Your task to perform on an android device: turn on javascript in the chrome app Image 0: 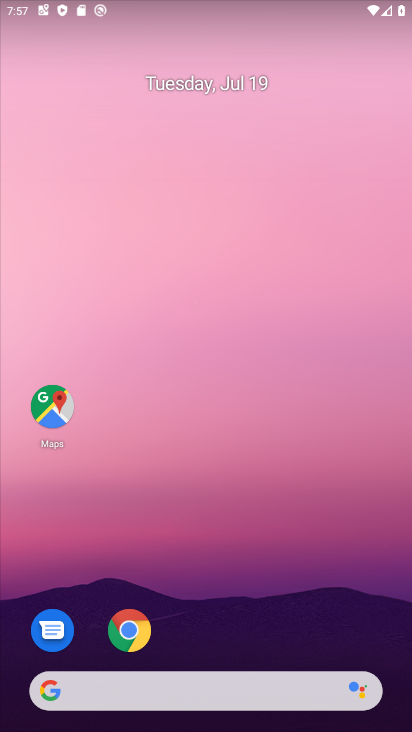
Step 0: drag from (295, 613) to (270, 122)
Your task to perform on an android device: turn on javascript in the chrome app Image 1: 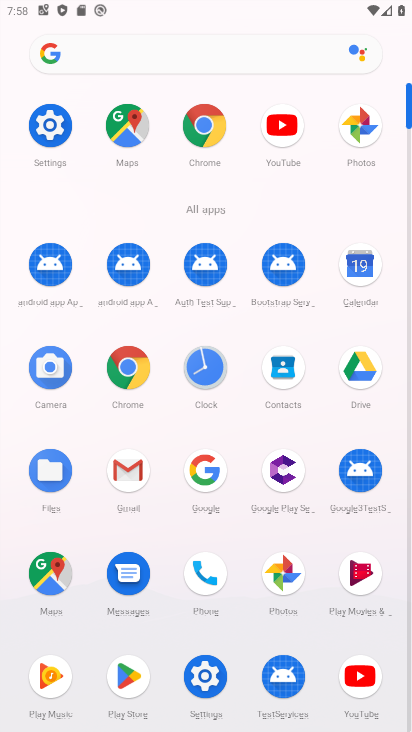
Step 1: click (206, 119)
Your task to perform on an android device: turn on javascript in the chrome app Image 2: 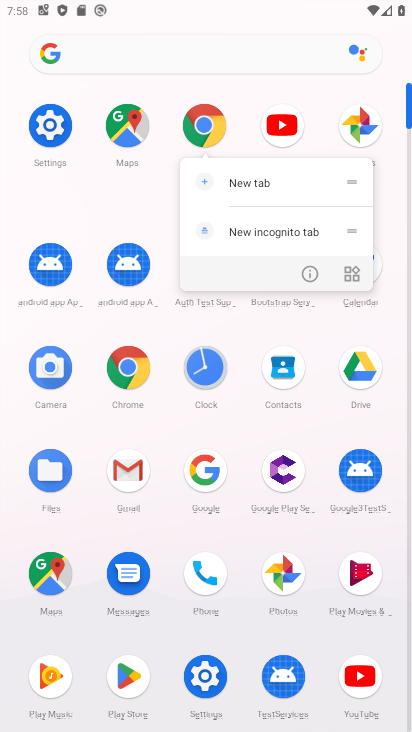
Step 2: click (203, 125)
Your task to perform on an android device: turn on javascript in the chrome app Image 3: 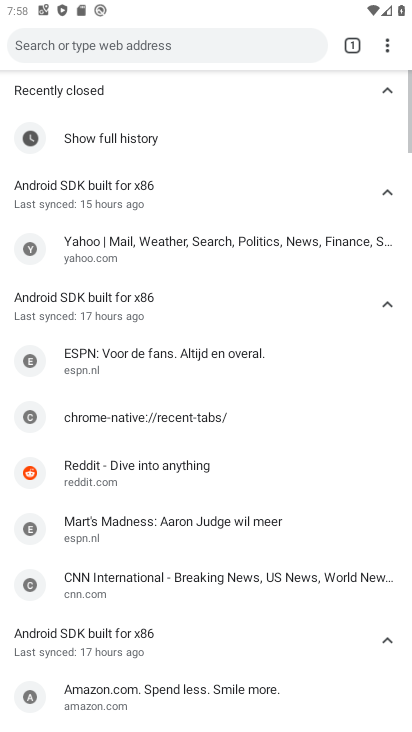
Step 3: click (389, 47)
Your task to perform on an android device: turn on javascript in the chrome app Image 4: 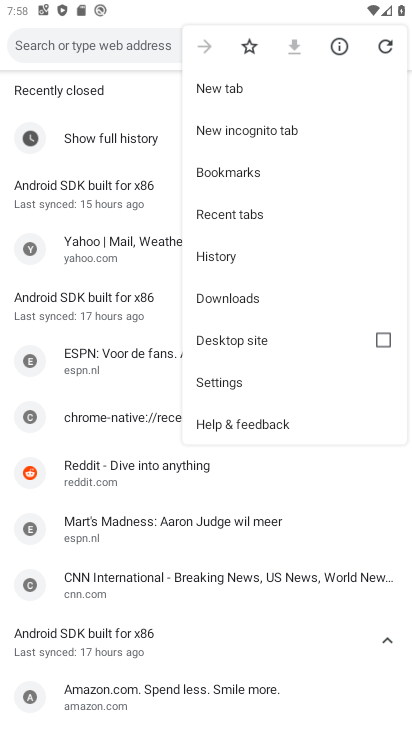
Step 4: click (257, 383)
Your task to perform on an android device: turn on javascript in the chrome app Image 5: 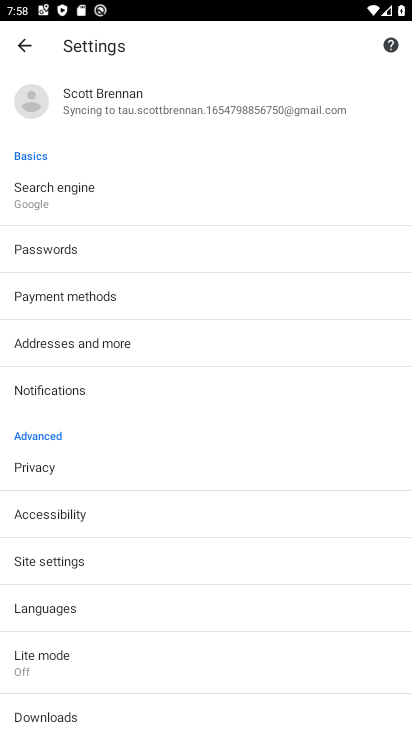
Step 5: click (81, 556)
Your task to perform on an android device: turn on javascript in the chrome app Image 6: 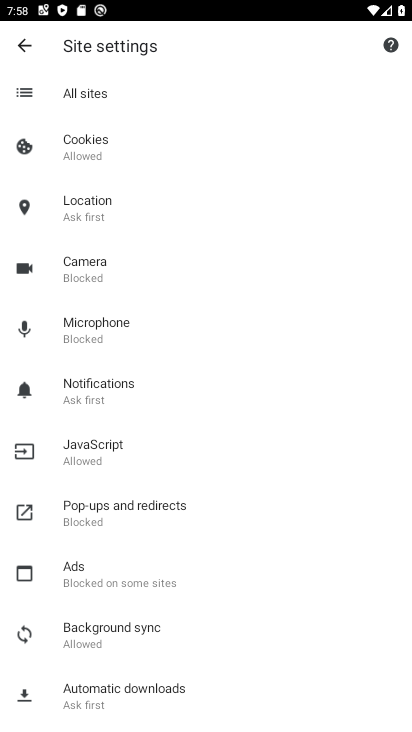
Step 6: click (108, 460)
Your task to perform on an android device: turn on javascript in the chrome app Image 7: 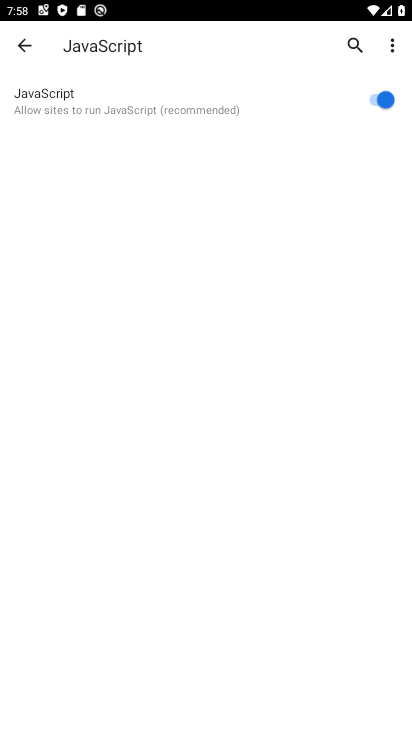
Step 7: click (374, 90)
Your task to perform on an android device: turn on javascript in the chrome app Image 8: 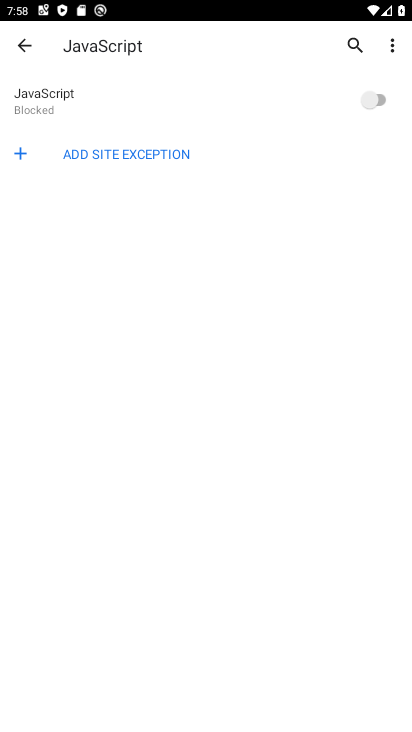
Step 8: click (369, 92)
Your task to perform on an android device: turn on javascript in the chrome app Image 9: 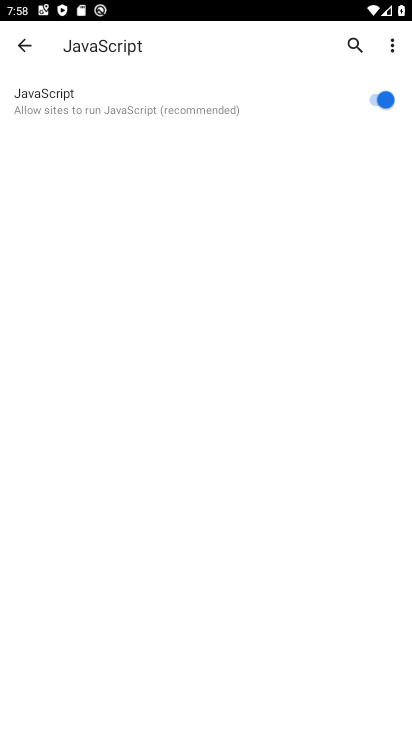
Step 9: task complete